Your task to perform on an android device: What is the recent news? Image 0: 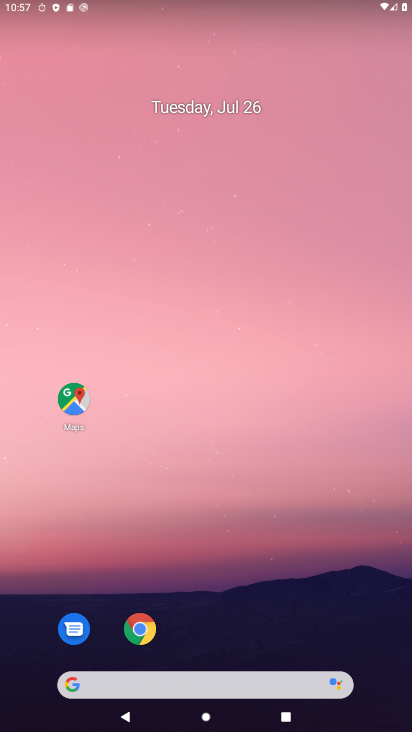
Step 0: drag from (335, 585) to (181, 31)
Your task to perform on an android device: What is the recent news? Image 1: 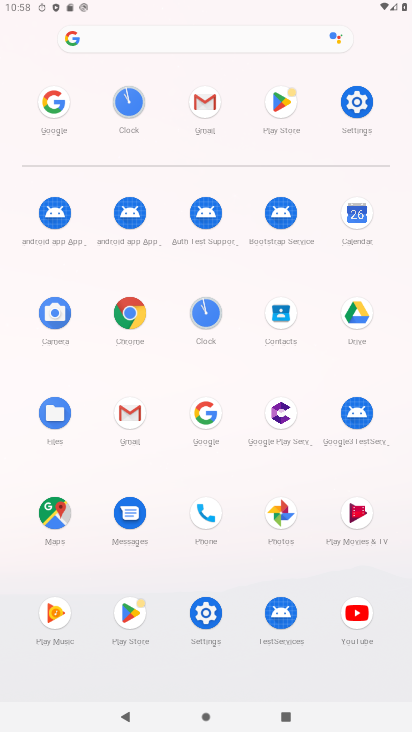
Step 1: click (210, 414)
Your task to perform on an android device: What is the recent news? Image 2: 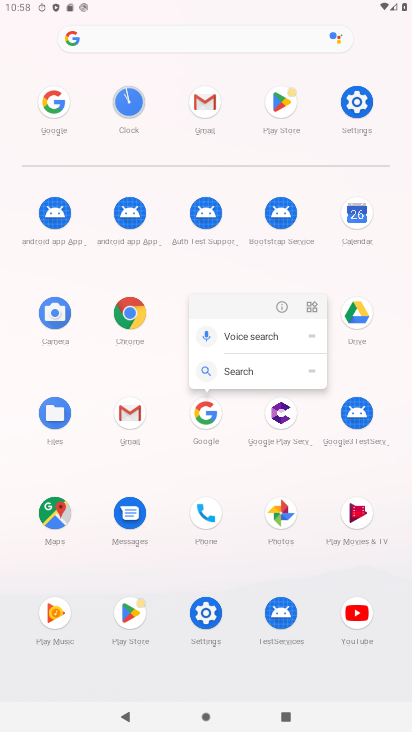
Step 2: click (210, 414)
Your task to perform on an android device: What is the recent news? Image 3: 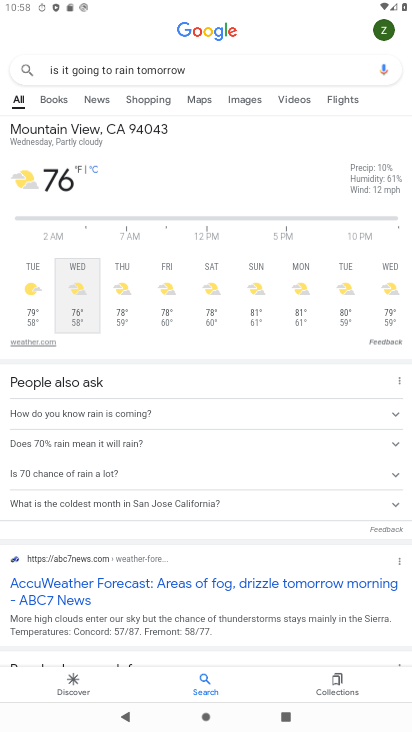
Step 3: press back button
Your task to perform on an android device: What is the recent news? Image 4: 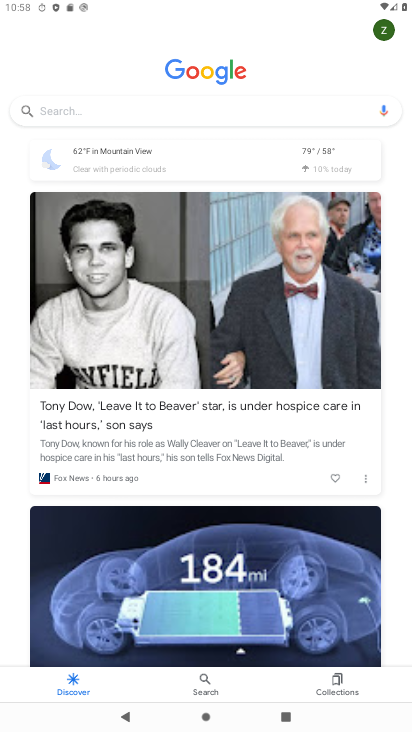
Step 4: click (149, 107)
Your task to perform on an android device: What is the recent news? Image 5: 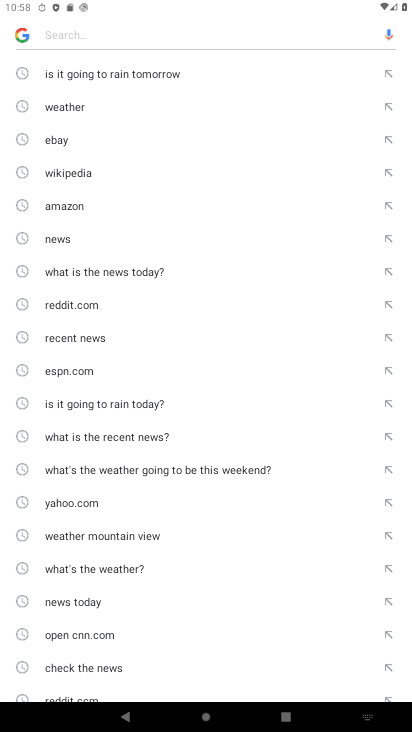
Step 5: click (90, 340)
Your task to perform on an android device: What is the recent news? Image 6: 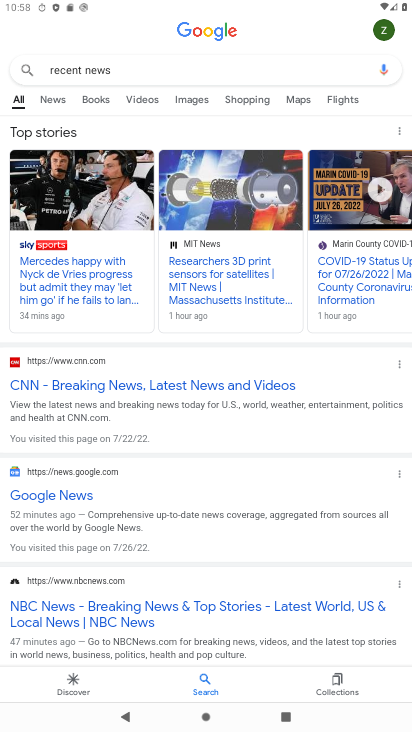
Step 6: task complete